Your task to perform on an android device: Open calendar and show me the first week of next month Image 0: 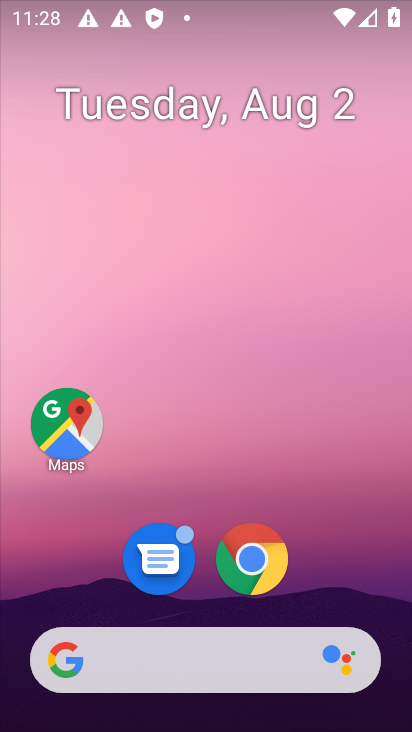
Step 0: drag from (202, 602) to (218, 61)
Your task to perform on an android device: Open calendar and show me the first week of next month Image 1: 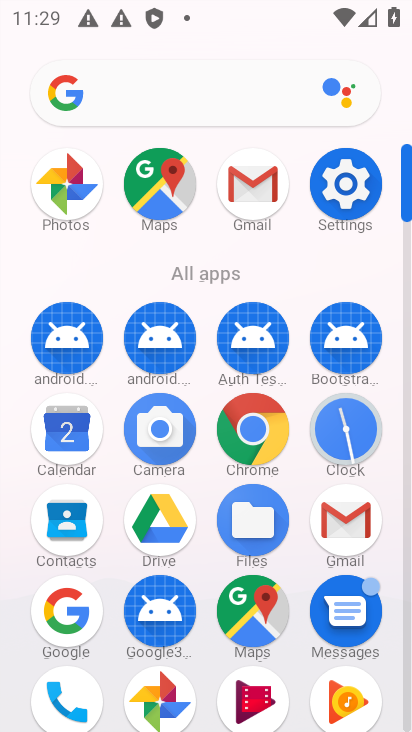
Step 1: click (70, 439)
Your task to perform on an android device: Open calendar and show me the first week of next month Image 2: 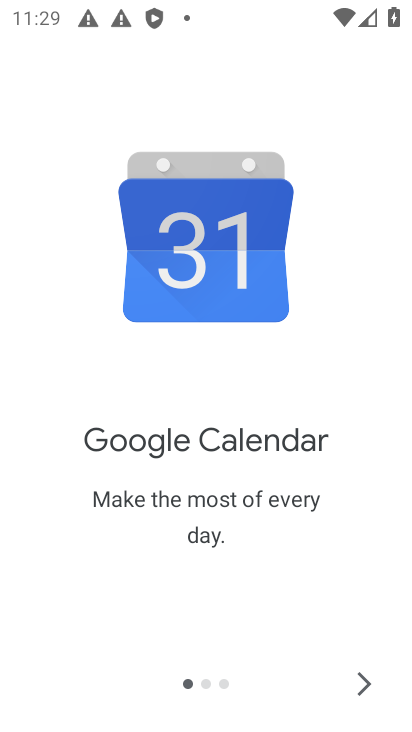
Step 2: click (364, 685)
Your task to perform on an android device: Open calendar and show me the first week of next month Image 3: 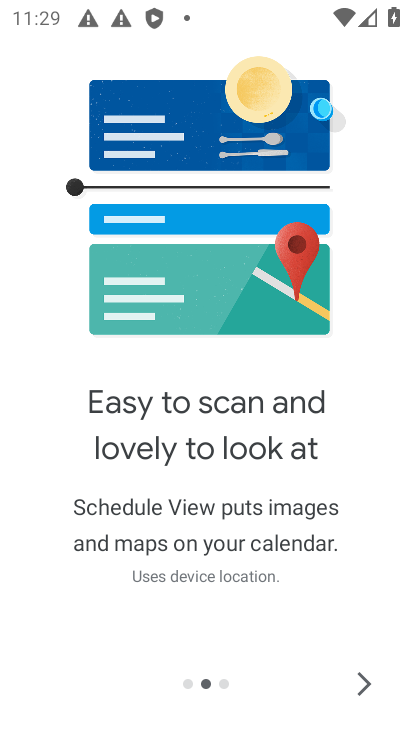
Step 3: click (364, 682)
Your task to perform on an android device: Open calendar and show me the first week of next month Image 4: 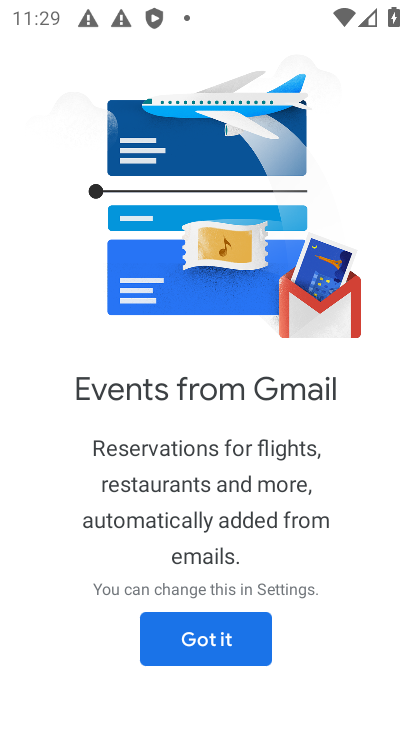
Step 4: click (213, 641)
Your task to perform on an android device: Open calendar and show me the first week of next month Image 5: 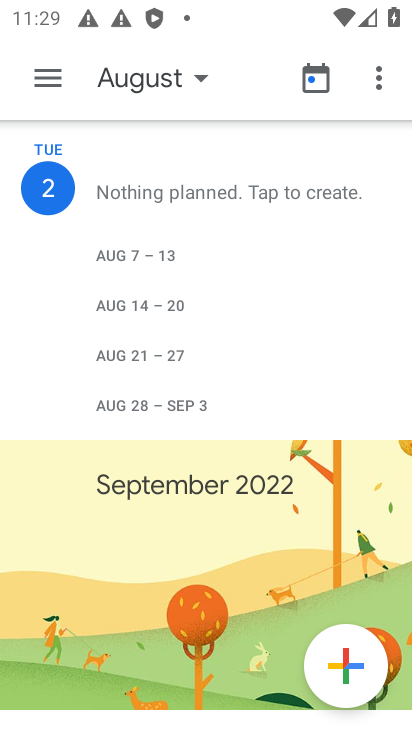
Step 5: click (198, 75)
Your task to perform on an android device: Open calendar and show me the first week of next month Image 6: 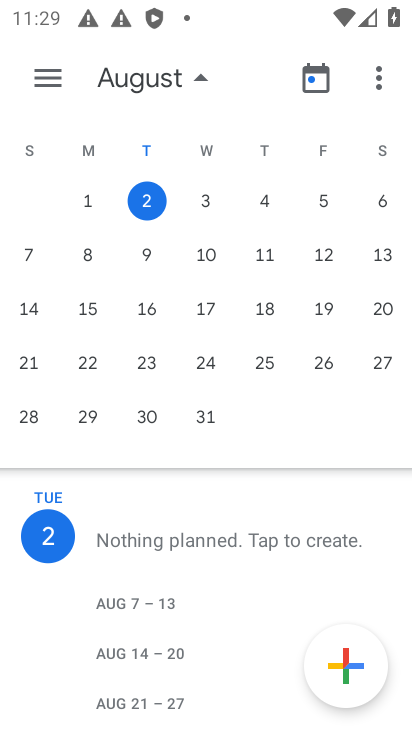
Step 6: drag from (374, 268) to (104, 269)
Your task to perform on an android device: Open calendar and show me the first week of next month Image 7: 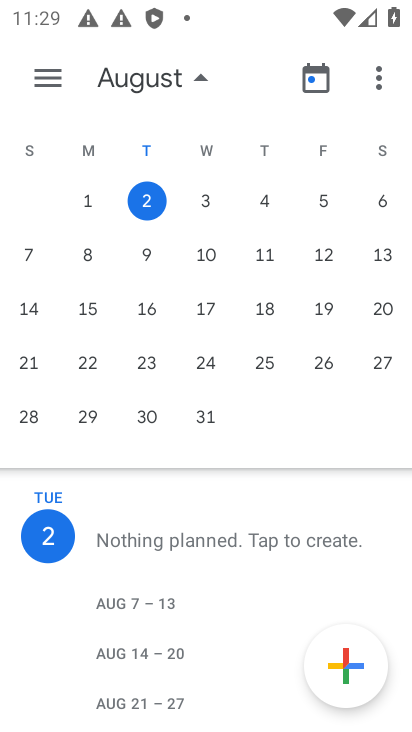
Step 7: drag from (374, 258) to (16, 243)
Your task to perform on an android device: Open calendar and show me the first week of next month Image 8: 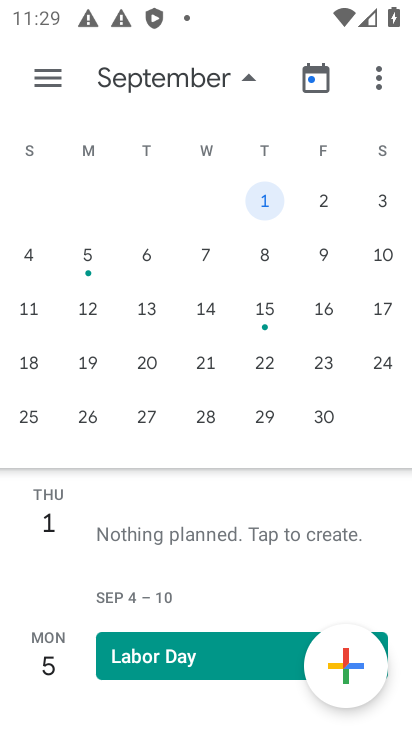
Step 8: click (85, 252)
Your task to perform on an android device: Open calendar and show me the first week of next month Image 9: 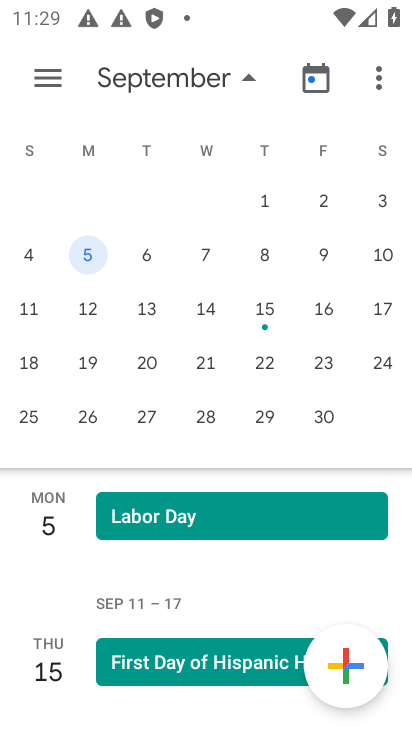
Step 9: click (41, 67)
Your task to perform on an android device: Open calendar and show me the first week of next month Image 10: 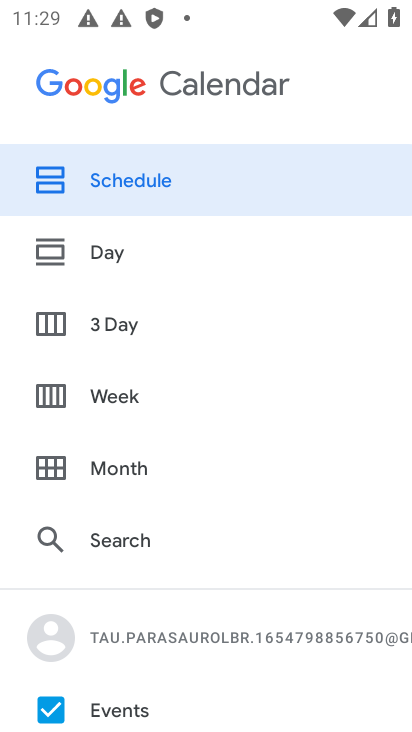
Step 10: click (118, 398)
Your task to perform on an android device: Open calendar and show me the first week of next month Image 11: 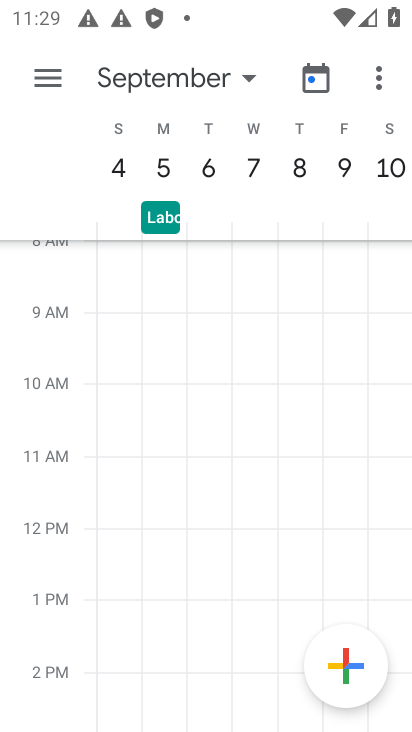
Step 11: task complete